Your task to perform on an android device: open device folders in google photos Image 0: 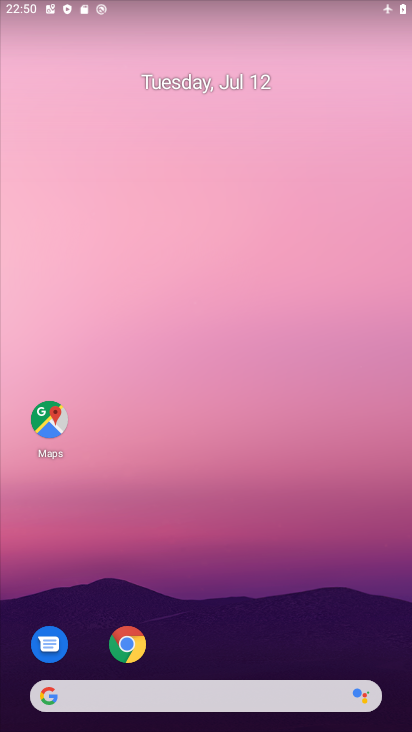
Step 0: drag from (206, 725) to (372, 314)
Your task to perform on an android device: open device folders in google photos Image 1: 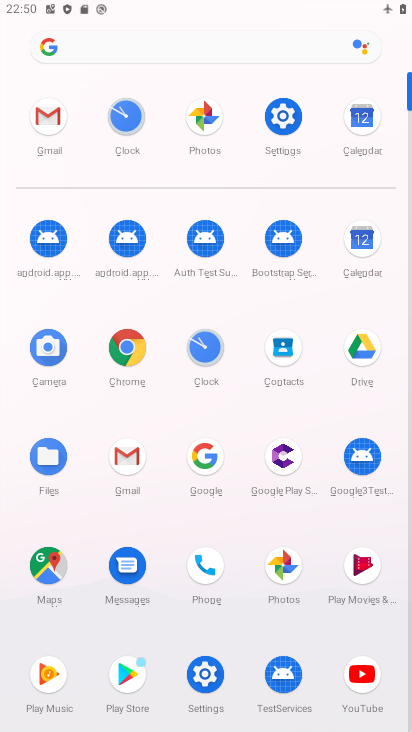
Step 1: click (200, 116)
Your task to perform on an android device: open device folders in google photos Image 2: 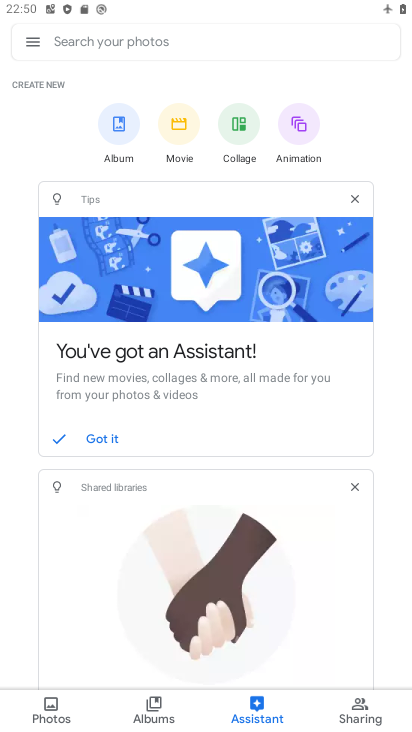
Step 2: click (50, 714)
Your task to perform on an android device: open device folders in google photos Image 3: 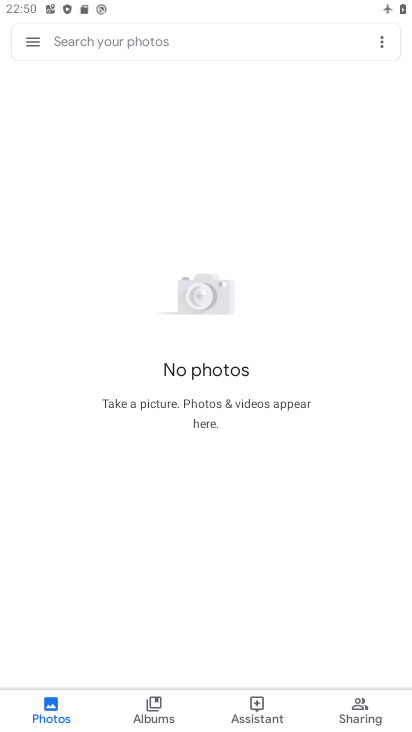
Step 3: click (32, 44)
Your task to perform on an android device: open device folders in google photos Image 4: 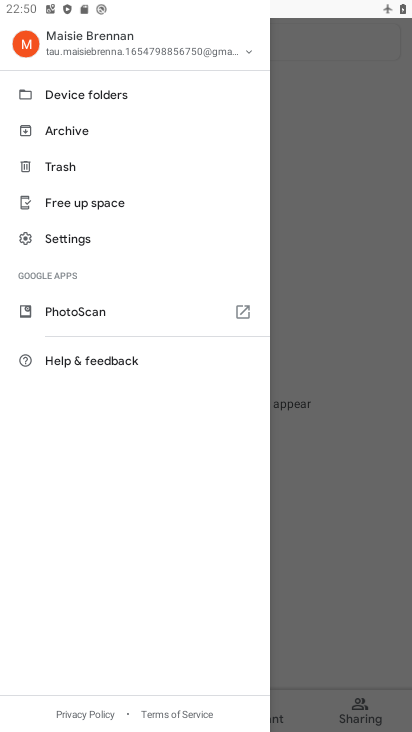
Step 4: click (83, 90)
Your task to perform on an android device: open device folders in google photos Image 5: 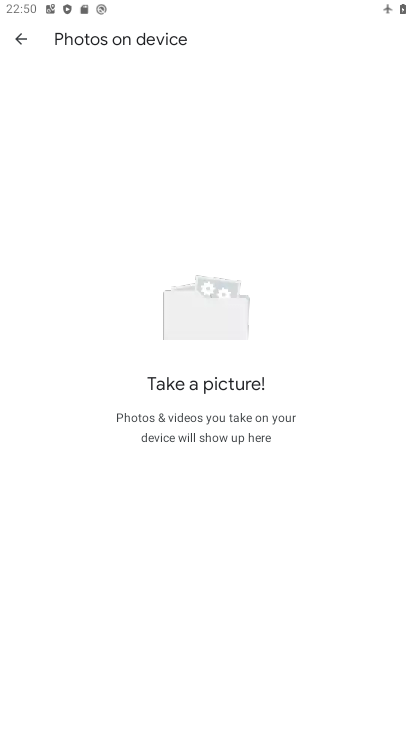
Step 5: task complete